Your task to perform on an android device: remove spam from my inbox in the gmail app Image 0: 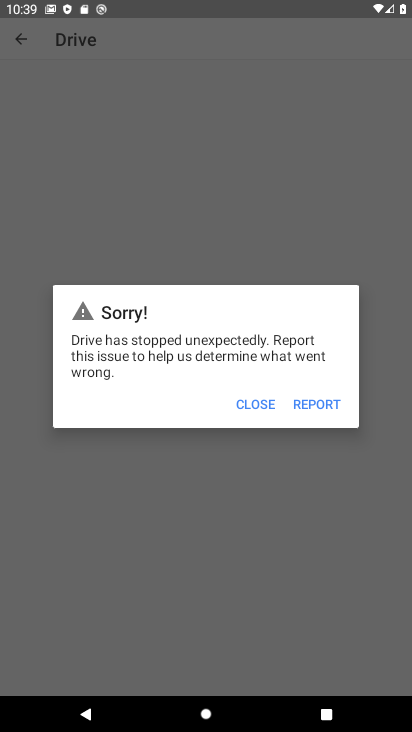
Step 0: press home button
Your task to perform on an android device: remove spam from my inbox in the gmail app Image 1: 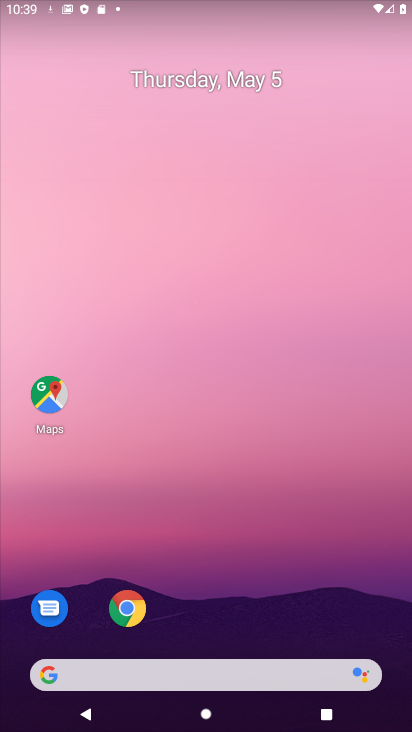
Step 1: drag from (234, 565) to (125, 104)
Your task to perform on an android device: remove spam from my inbox in the gmail app Image 2: 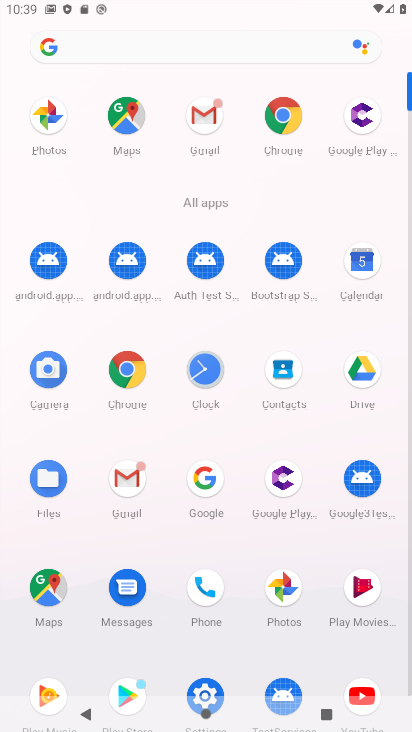
Step 2: click (199, 123)
Your task to perform on an android device: remove spam from my inbox in the gmail app Image 3: 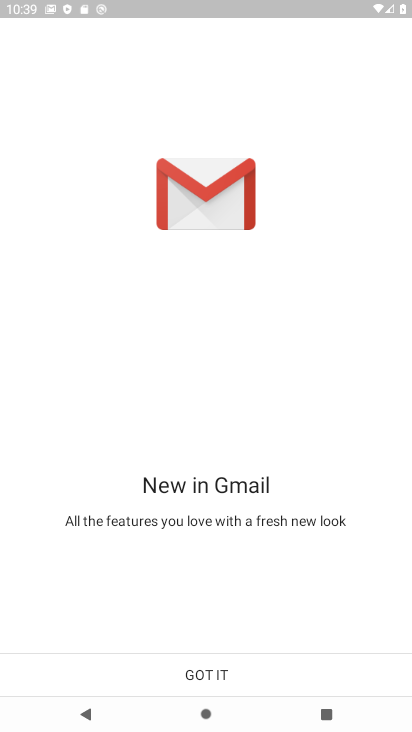
Step 3: click (190, 676)
Your task to perform on an android device: remove spam from my inbox in the gmail app Image 4: 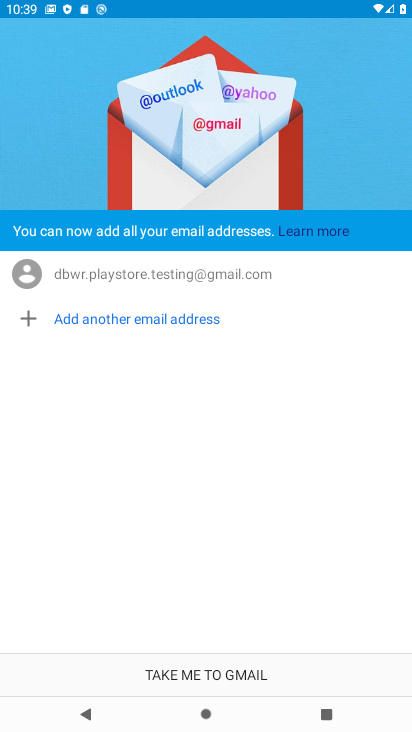
Step 4: click (190, 676)
Your task to perform on an android device: remove spam from my inbox in the gmail app Image 5: 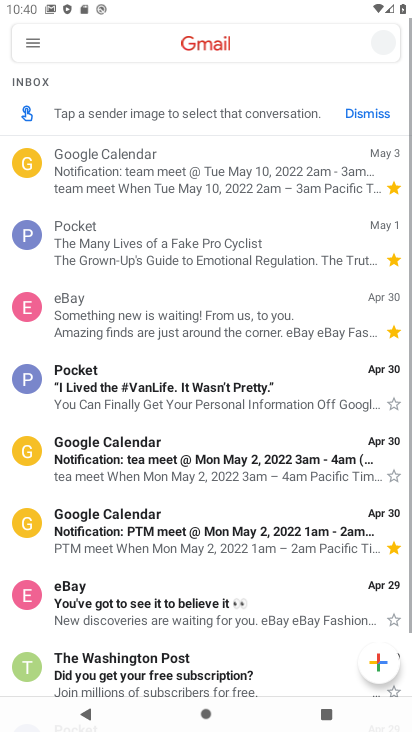
Step 5: click (29, 45)
Your task to perform on an android device: remove spam from my inbox in the gmail app Image 6: 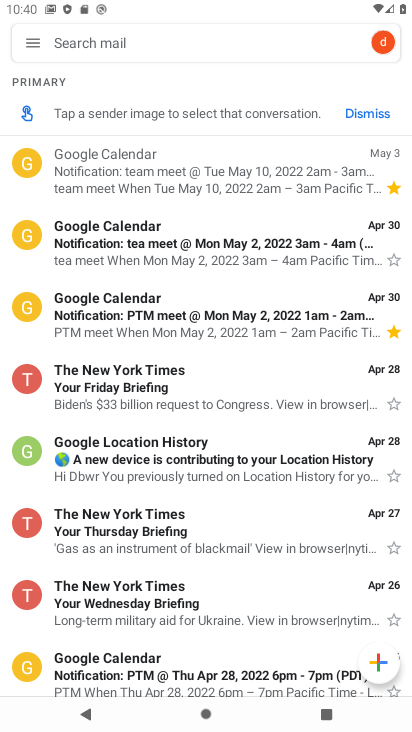
Step 6: click (35, 43)
Your task to perform on an android device: remove spam from my inbox in the gmail app Image 7: 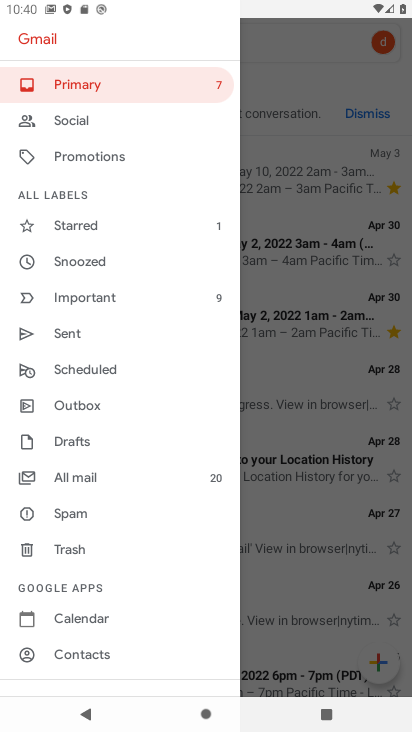
Step 7: click (74, 512)
Your task to perform on an android device: remove spam from my inbox in the gmail app Image 8: 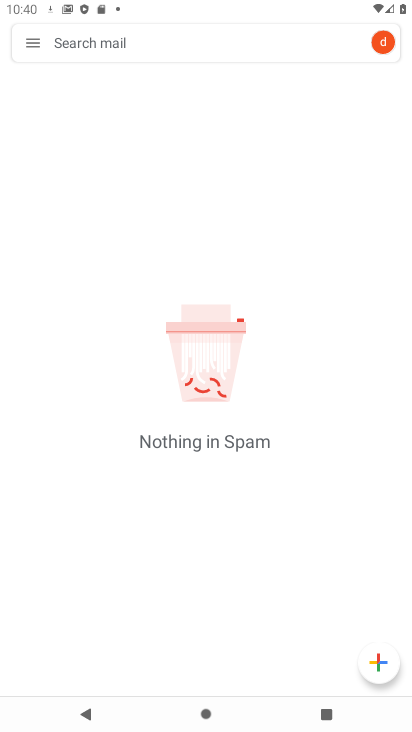
Step 8: task complete